Your task to perform on an android device: change text size in settings app Image 0: 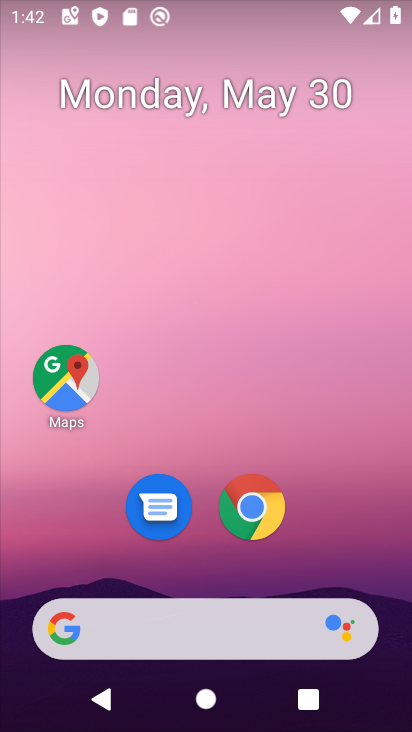
Step 0: drag from (288, 550) to (263, 9)
Your task to perform on an android device: change text size in settings app Image 1: 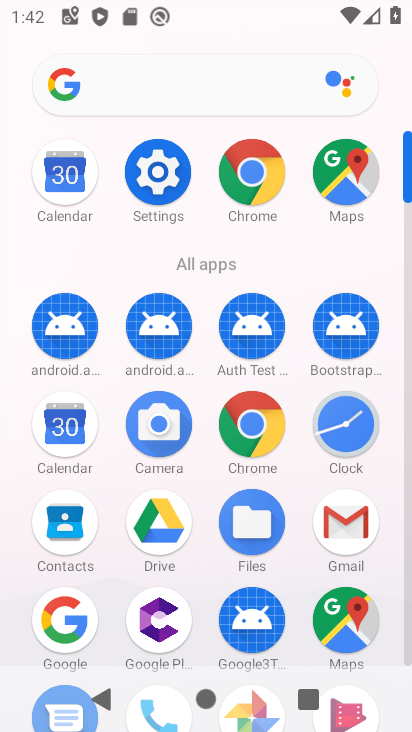
Step 1: click (156, 187)
Your task to perform on an android device: change text size in settings app Image 2: 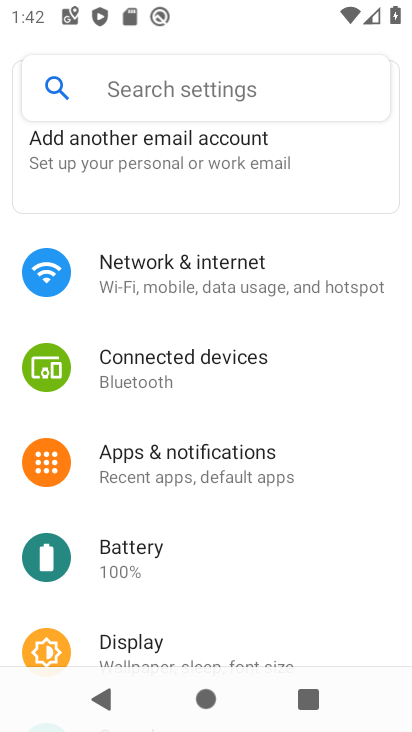
Step 2: drag from (154, 596) to (123, 275)
Your task to perform on an android device: change text size in settings app Image 3: 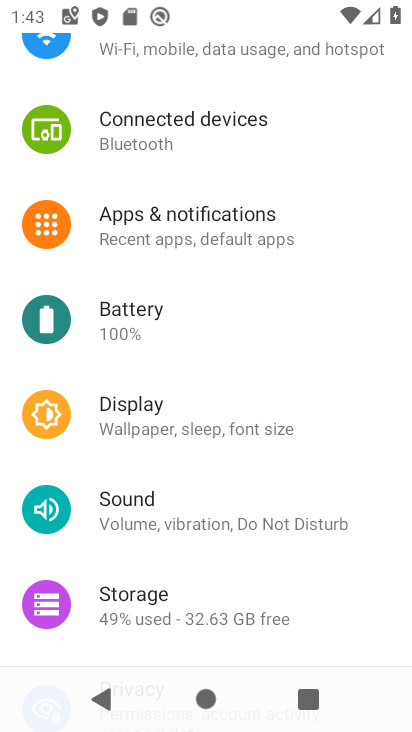
Step 3: click (138, 423)
Your task to perform on an android device: change text size in settings app Image 4: 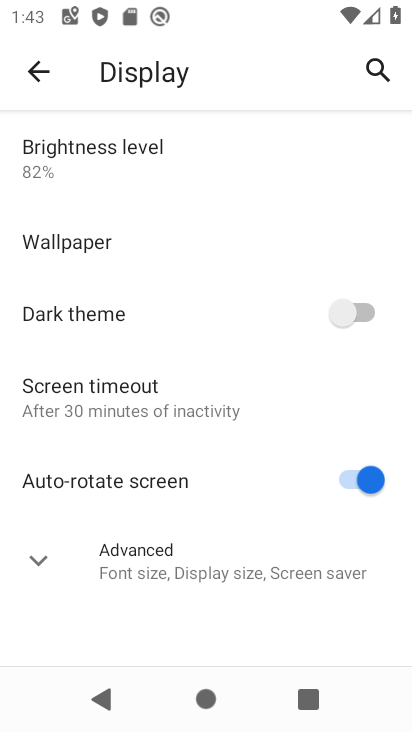
Step 4: click (128, 568)
Your task to perform on an android device: change text size in settings app Image 5: 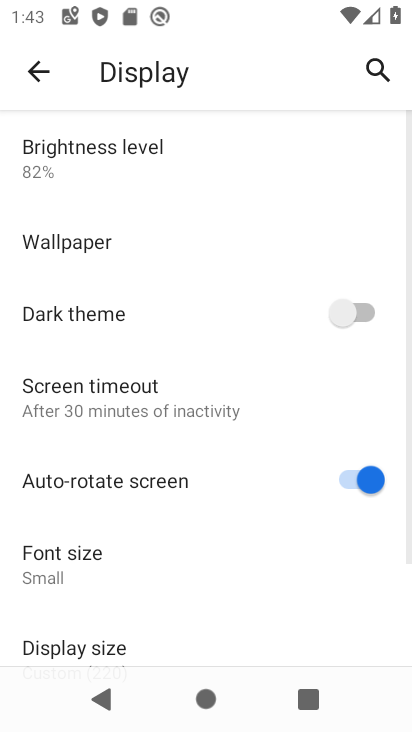
Step 5: click (41, 560)
Your task to perform on an android device: change text size in settings app Image 6: 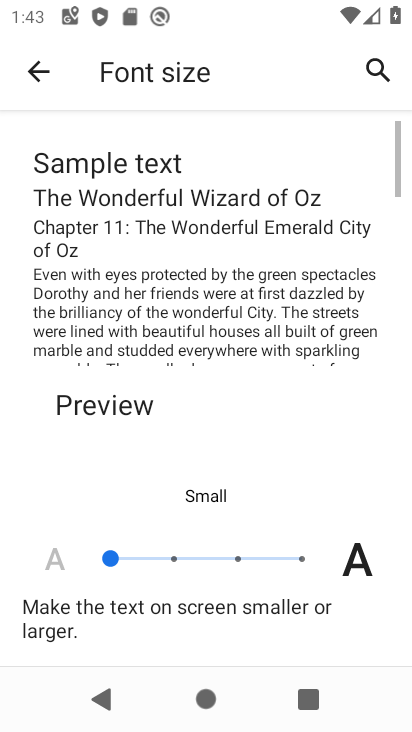
Step 6: click (178, 557)
Your task to perform on an android device: change text size in settings app Image 7: 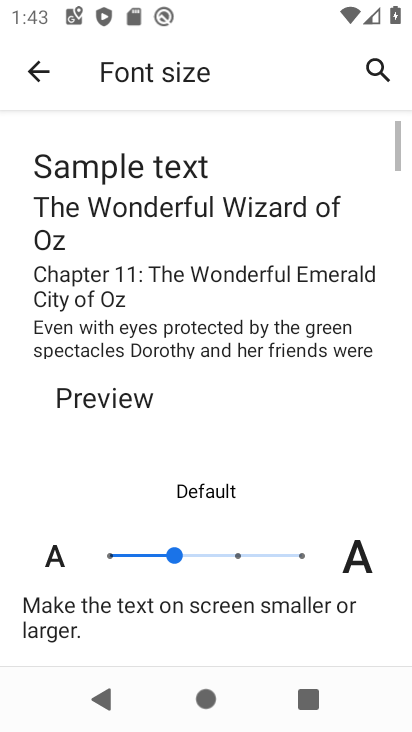
Step 7: task complete